Your task to perform on an android device: turn off data saver in the chrome app Image 0: 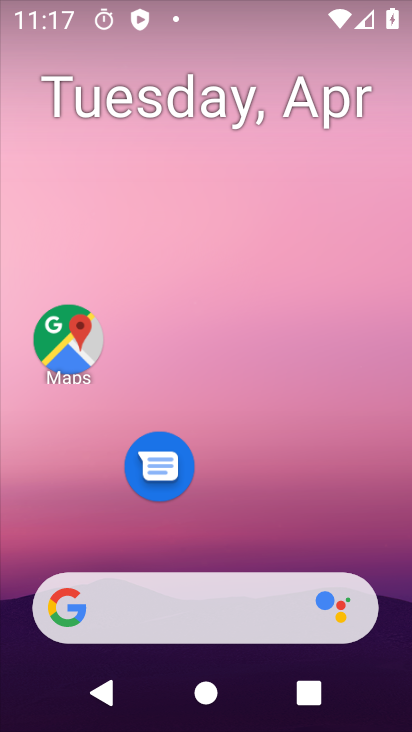
Step 0: drag from (217, 502) to (209, 134)
Your task to perform on an android device: turn off data saver in the chrome app Image 1: 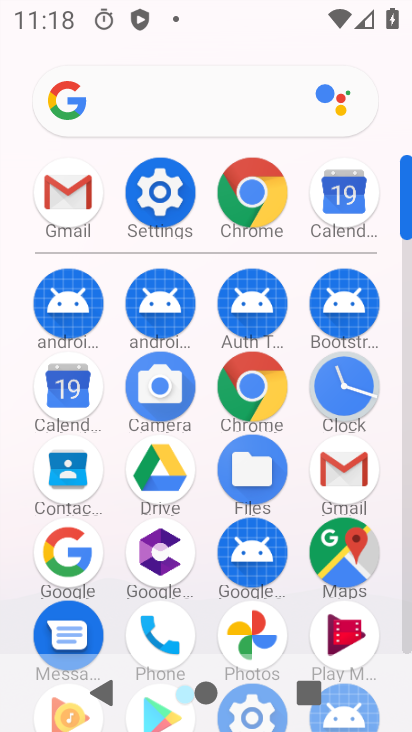
Step 1: click (226, 190)
Your task to perform on an android device: turn off data saver in the chrome app Image 2: 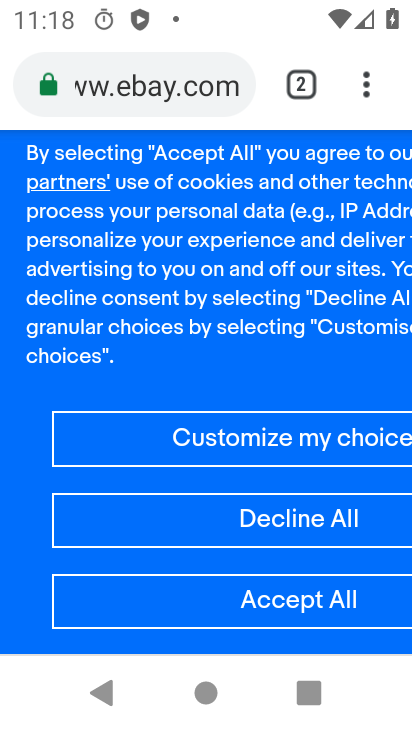
Step 2: click (376, 78)
Your task to perform on an android device: turn off data saver in the chrome app Image 3: 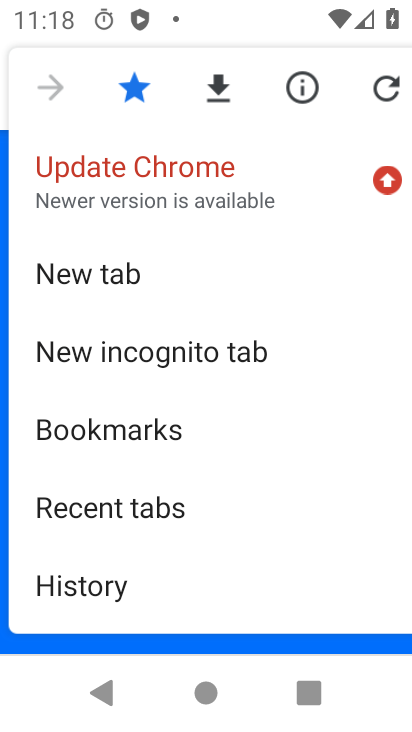
Step 3: drag from (240, 489) to (280, 244)
Your task to perform on an android device: turn off data saver in the chrome app Image 4: 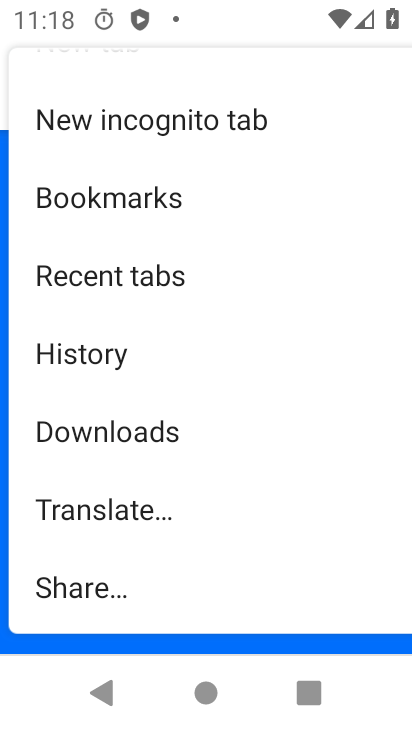
Step 4: drag from (194, 550) to (233, 283)
Your task to perform on an android device: turn off data saver in the chrome app Image 5: 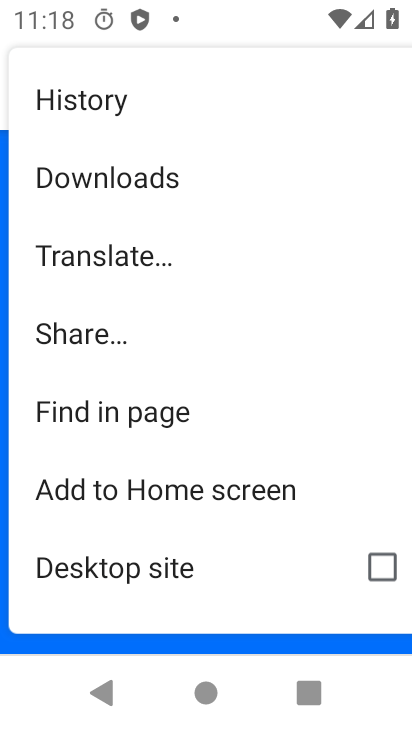
Step 5: drag from (198, 510) to (220, 280)
Your task to perform on an android device: turn off data saver in the chrome app Image 6: 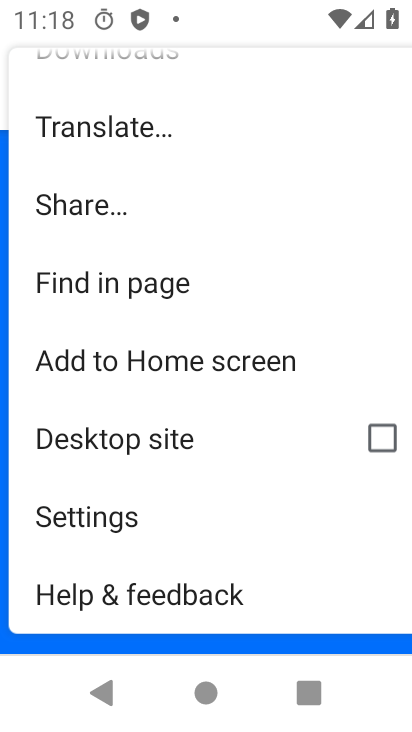
Step 6: drag from (202, 499) to (218, 417)
Your task to perform on an android device: turn off data saver in the chrome app Image 7: 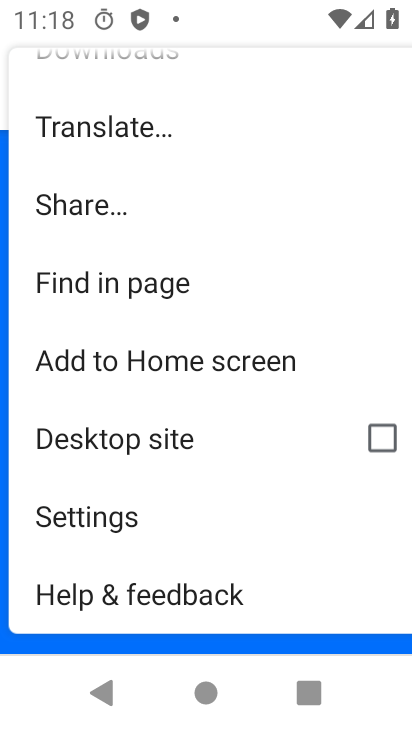
Step 7: click (166, 512)
Your task to perform on an android device: turn off data saver in the chrome app Image 8: 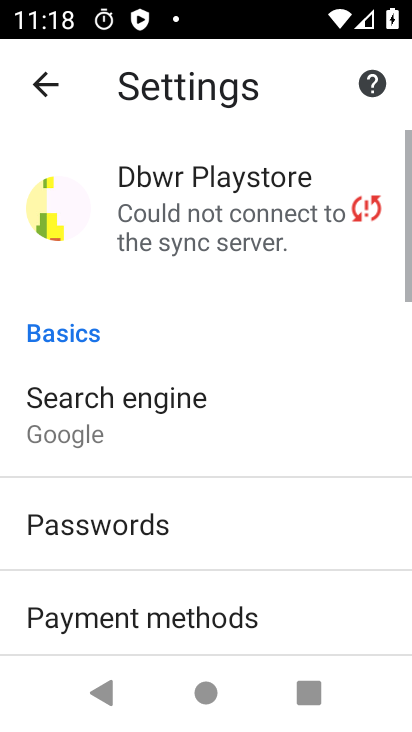
Step 8: drag from (134, 560) to (214, 235)
Your task to perform on an android device: turn off data saver in the chrome app Image 9: 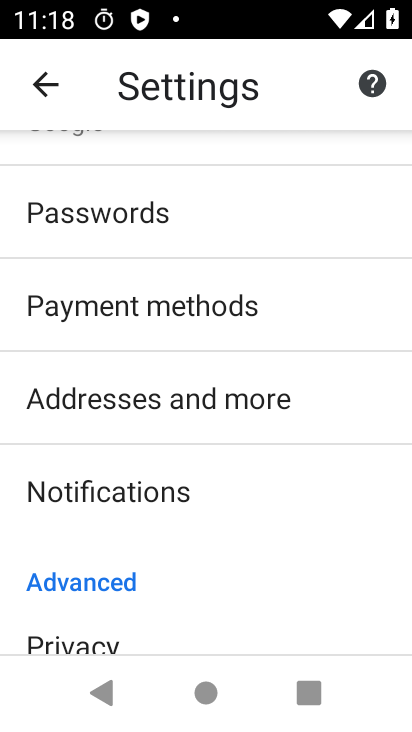
Step 9: drag from (208, 460) to (245, 315)
Your task to perform on an android device: turn off data saver in the chrome app Image 10: 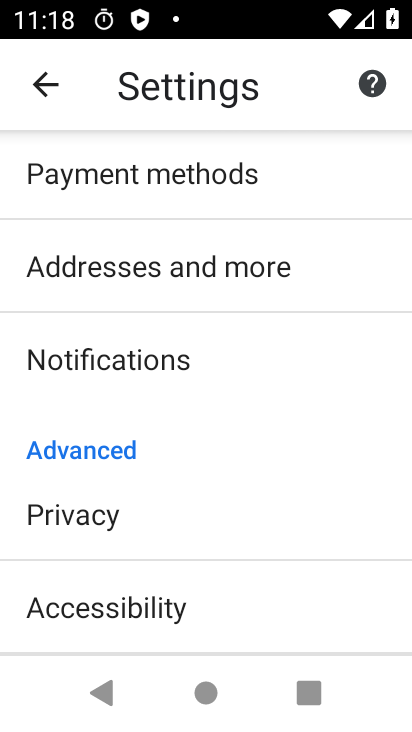
Step 10: drag from (226, 471) to (268, 267)
Your task to perform on an android device: turn off data saver in the chrome app Image 11: 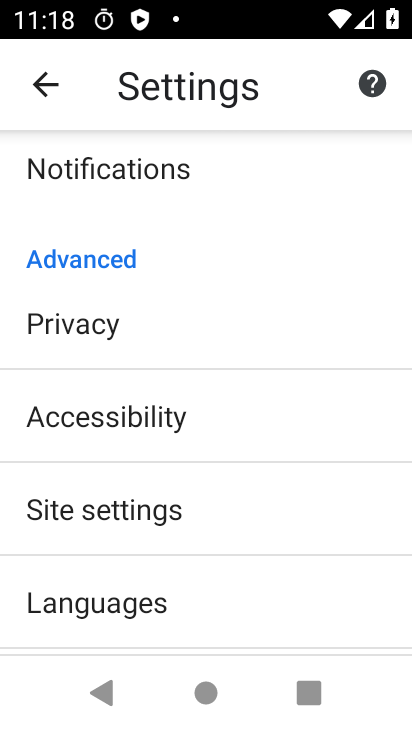
Step 11: drag from (201, 549) to (235, 395)
Your task to perform on an android device: turn off data saver in the chrome app Image 12: 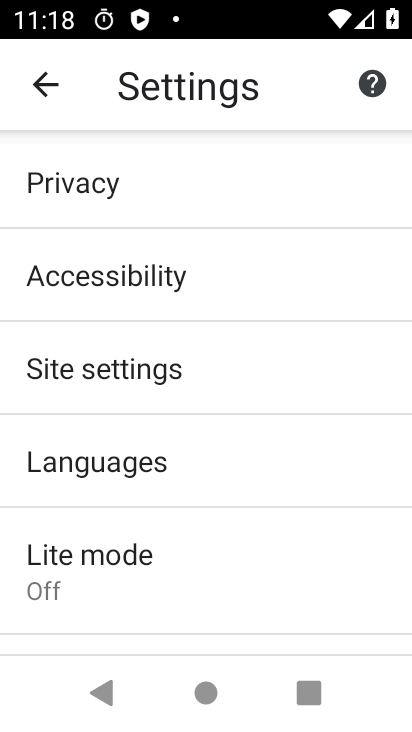
Step 12: click (178, 581)
Your task to perform on an android device: turn off data saver in the chrome app Image 13: 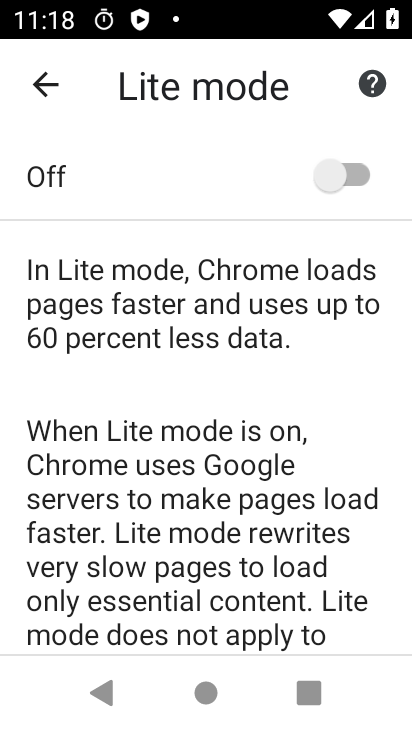
Step 13: task complete